Your task to perform on an android device: Open calendar and show me the second week of next month Image 0: 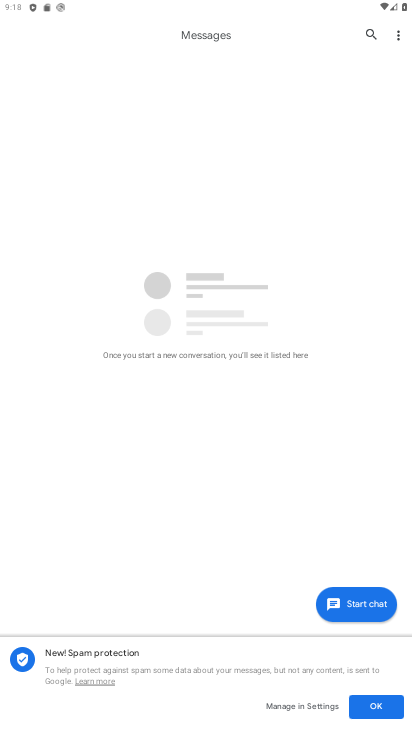
Step 0: drag from (165, 519) to (185, 303)
Your task to perform on an android device: Open calendar and show me the second week of next month Image 1: 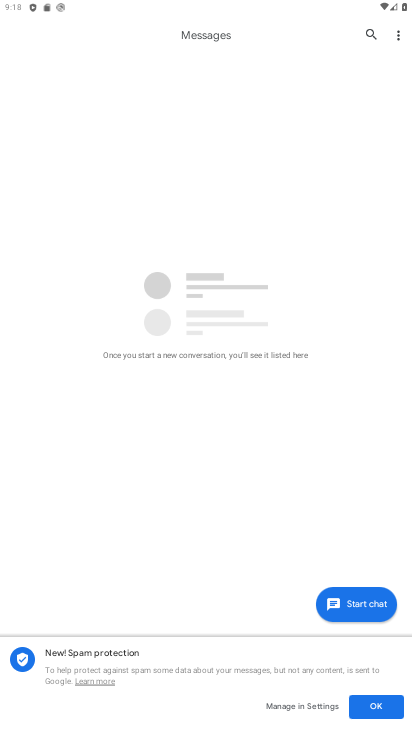
Step 1: drag from (121, 258) to (114, 461)
Your task to perform on an android device: Open calendar and show me the second week of next month Image 2: 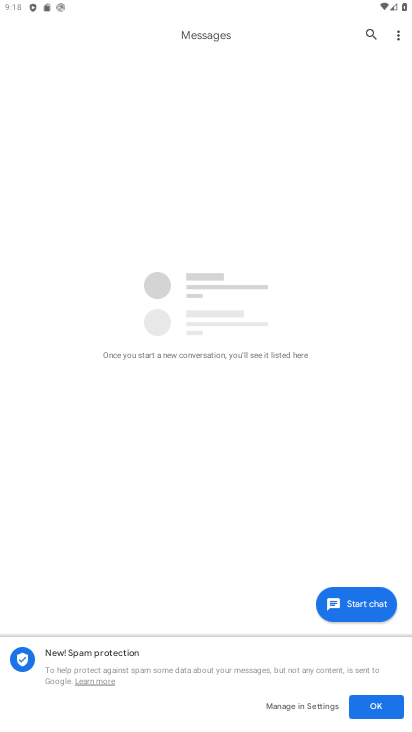
Step 2: press home button
Your task to perform on an android device: Open calendar and show me the second week of next month Image 3: 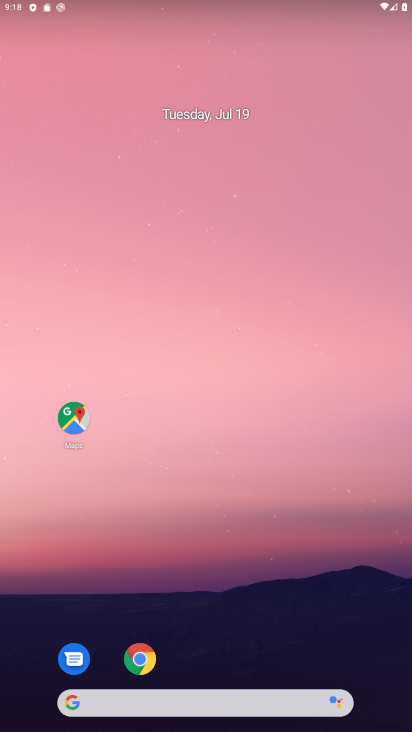
Step 3: drag from (160, 554) to (268, 239)
Your task to perform on an android device: Open calendar and show me the second week of next month Image 4: 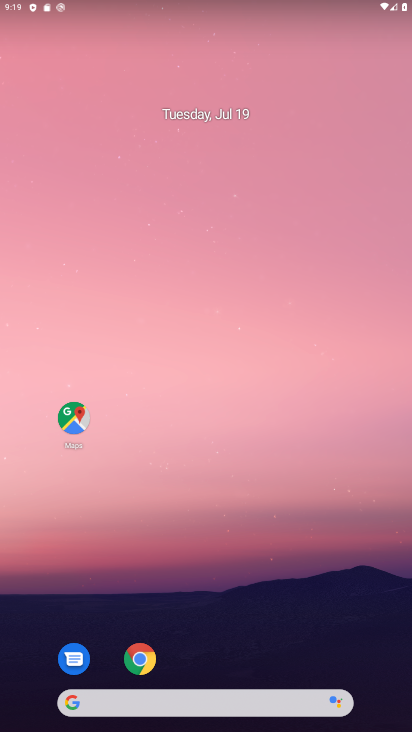
Step 4: drag from (220, 630) to (371, 228)
Your task to perform on an android device: Open calendar and show me the second week of next month Image 5: 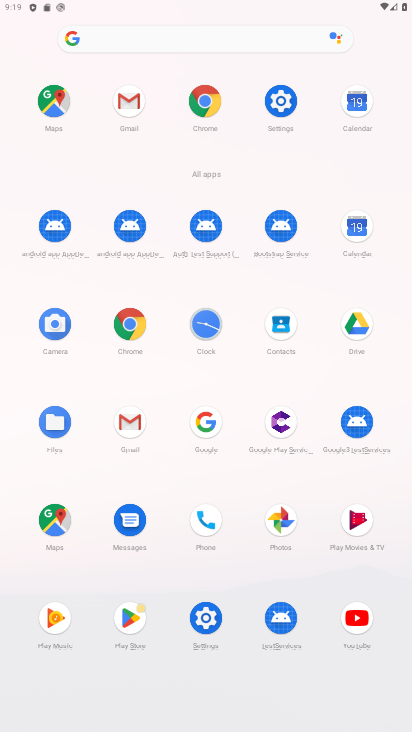
Step 5: click (355, 245)
Your task to perform on an android device: Open calendar and show me the second week of next month Image 6: 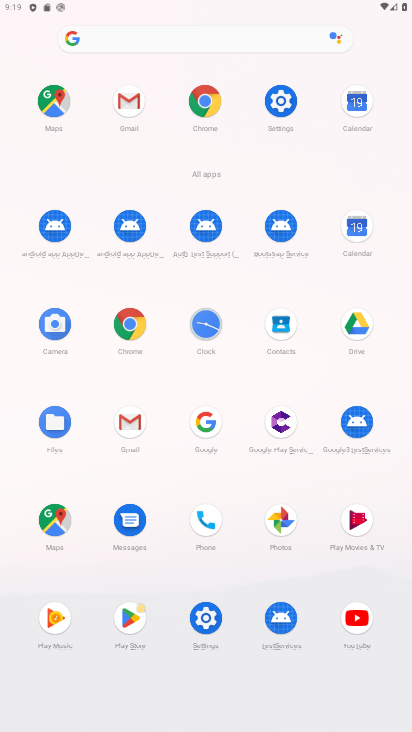
Step 6: click (355, 245)
Your task to perform on an android device: Open calendar and show me the second week of next month Image 7: 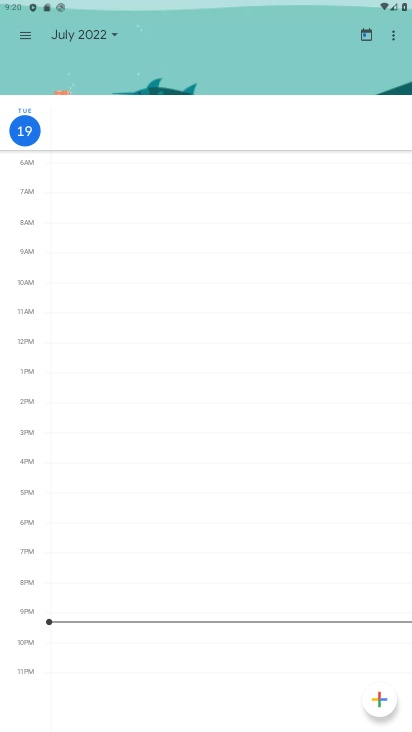
Step 7: drag from (232, 627) to (249, 478)
Your task to perform on an android device: Open calendar and show me the second week of next month Image 8: 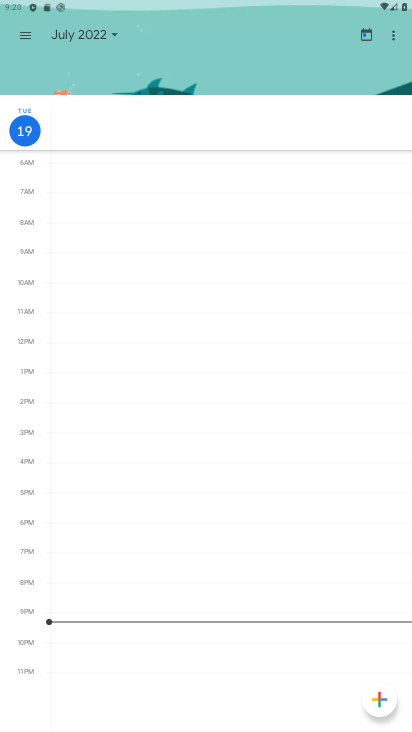
Step 8: click (376, 47)
Your task to perform on an android device: Open calendar and show me the second week of next month Image 9: 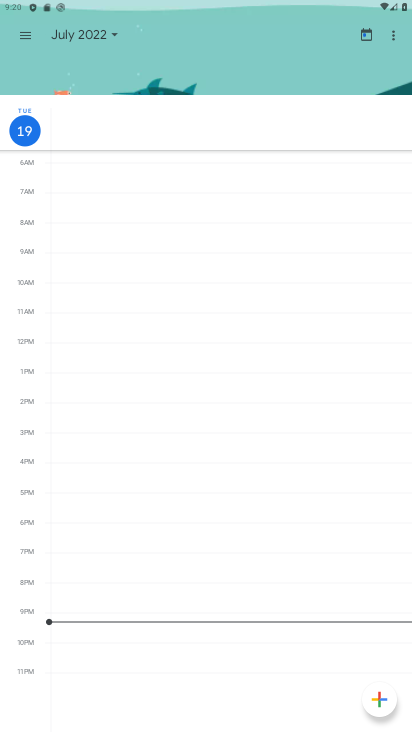
Step 9: click (366, 38)
Your task to perform on an android device: Open calendar and show me the second week of next month Image 10: 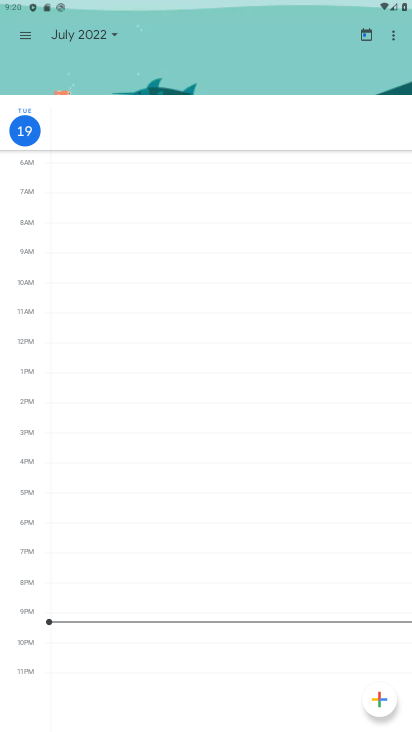
Step 10: click (88, 40)
Your task to perform on an android device: Open calendar and show me the second week of next month Image 11: 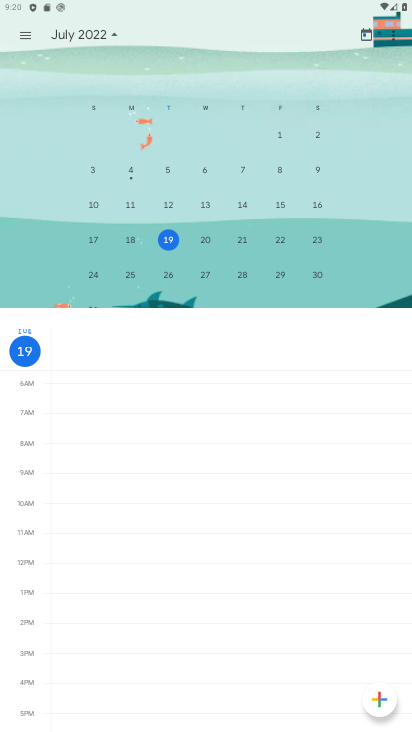
Step 11: drag from (328, 222) to (24, 225)
Your task to perform on an android device: Open calendar and show me the second week of next month Image 12: 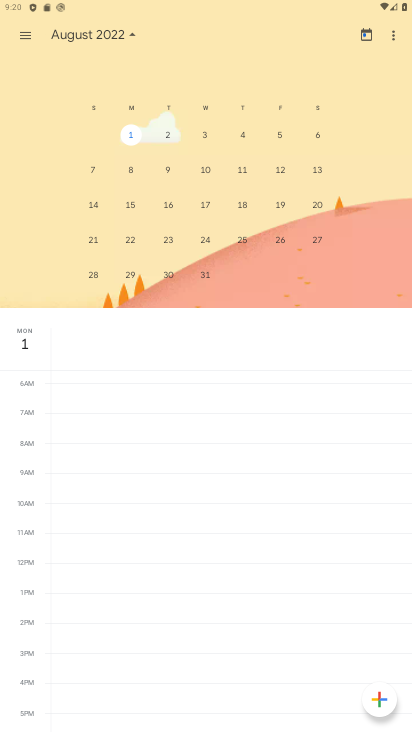
Step 12: click (282, 171)
Your task to perform on an android device: Open calendar and show me the second week of next month Image 13: 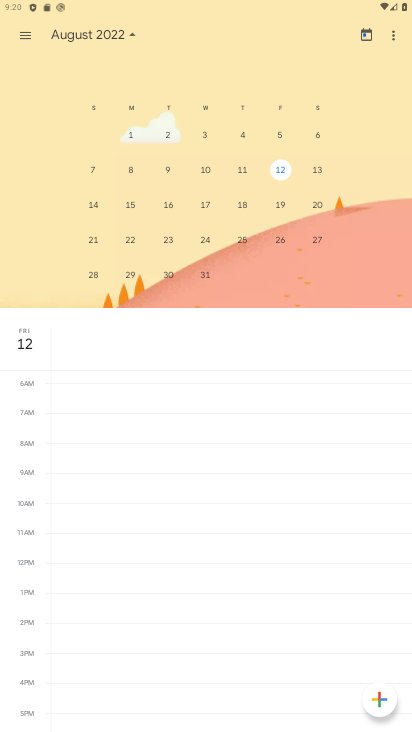
Step 13: task complete